Your task to perform on an android device: turn off location Image 0: 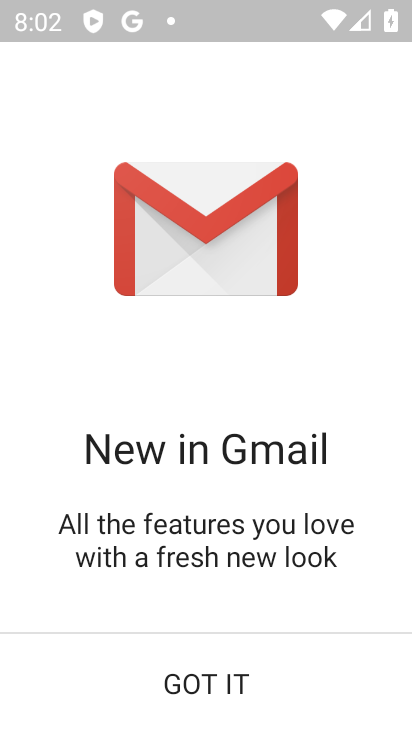
Step 0: click (198, 677)
Your task to perform on an android device: turn off location Image 1: 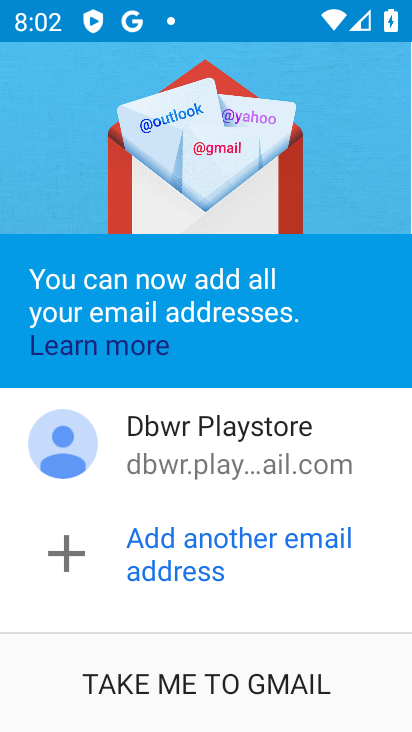
Step 1: press home button
Your task to perform on an android device: turn off location Image 2: 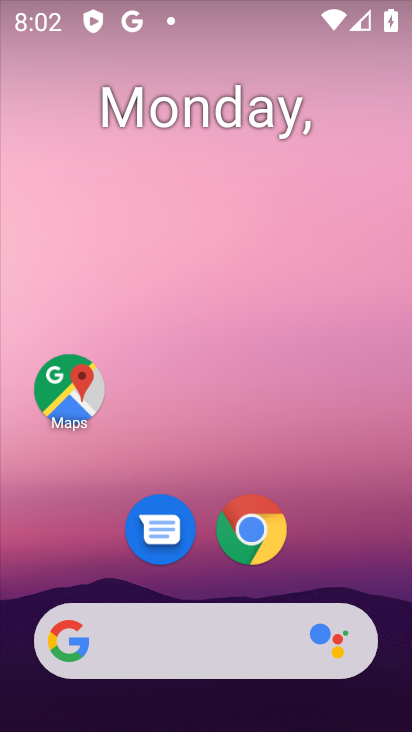
Step 2: drag from (267, 677) to (334, 154)
Your task to perform on an android device: turn off location Image 3: 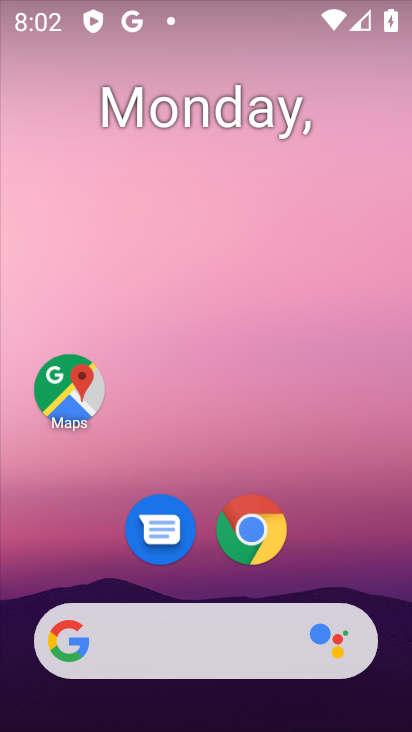
Step 3: drag from (212, 688) to (302, 83)
Your task to perform on an android device: turn off location Image 4: 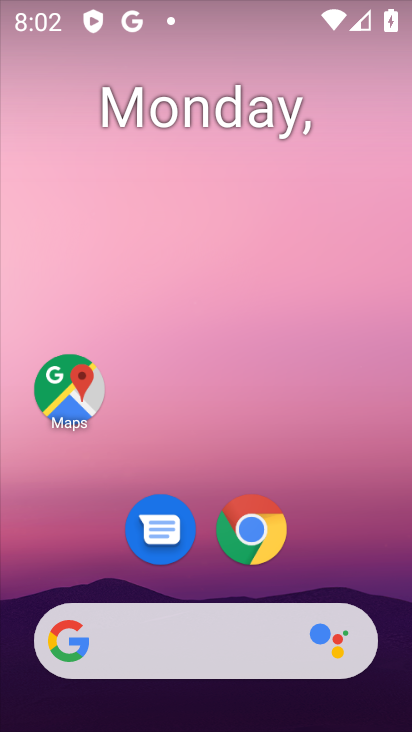
Step 4: drag from (208, 694) to (217, 168)
Your task to perform on an android device: turn off location Image 5: 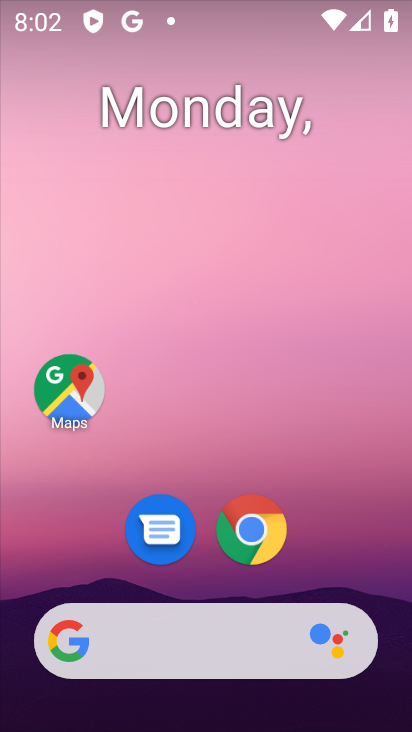
Step 5: drag from (207, 688) to (225, 204)
Your task to perform on an android device: turn off location Image 6: 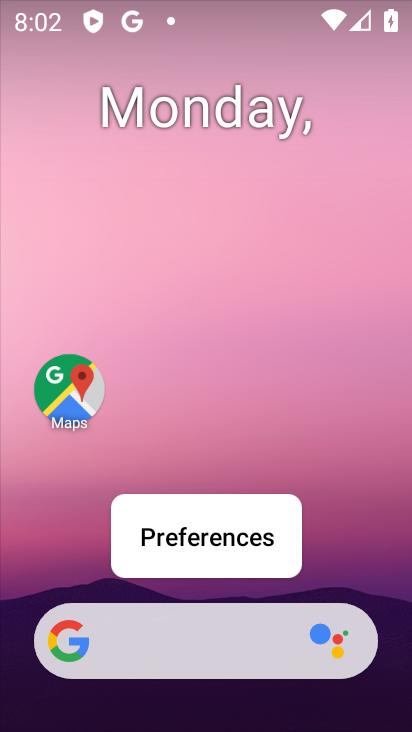
Step 6: click (192, 453)
Your task to perform on an android device: turn off location Image 7: 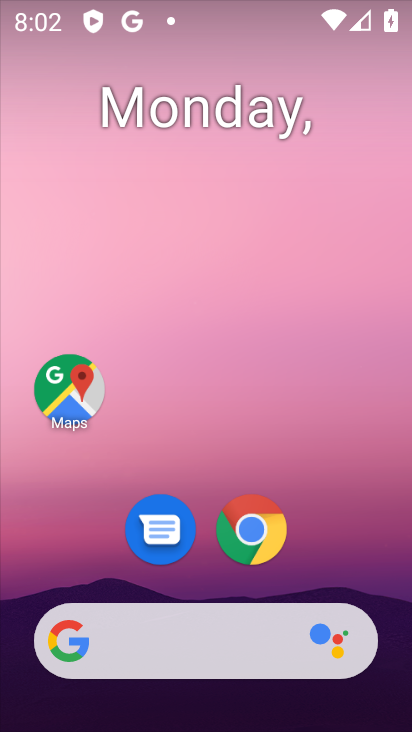
Step 7: drag from (241, 684) to (243, 159)
Your task to perform on an android device: turn off location Image 8: 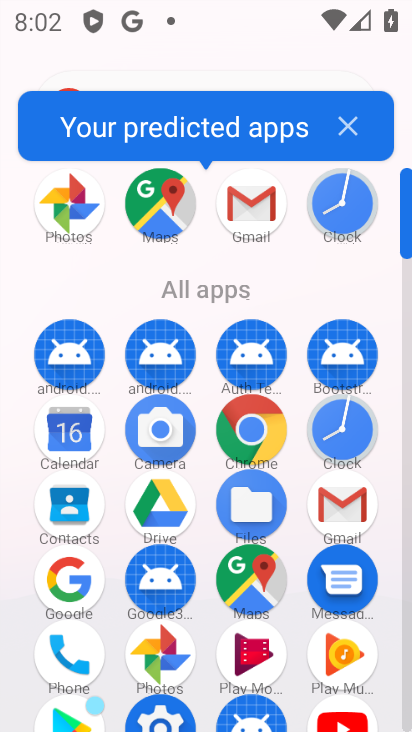
Step 8: click (168, 709)
Your task to perform on an android device: turn off location Image 9: 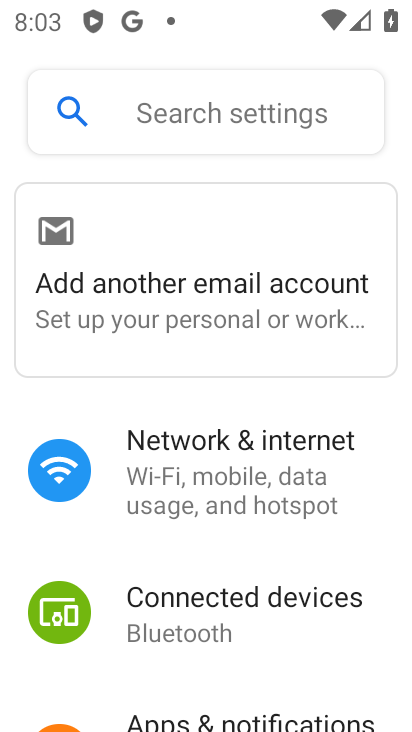
Step 9: click (213, 123)
Your task to perform on an android device: turn off location Image 10: 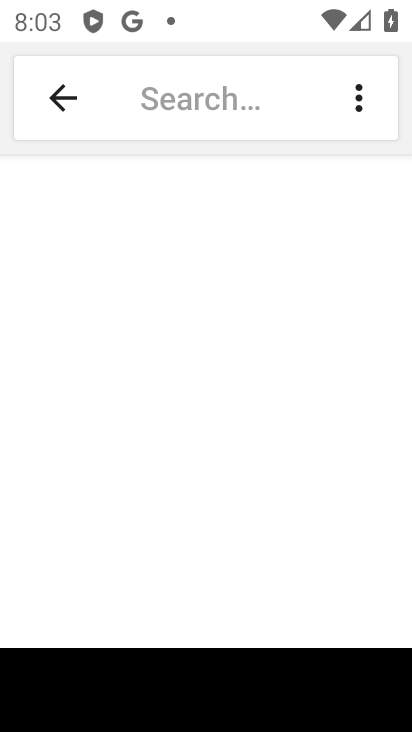
Step 10: click (382, 694)
Your task to perform on an android device: turn off location Image 11: 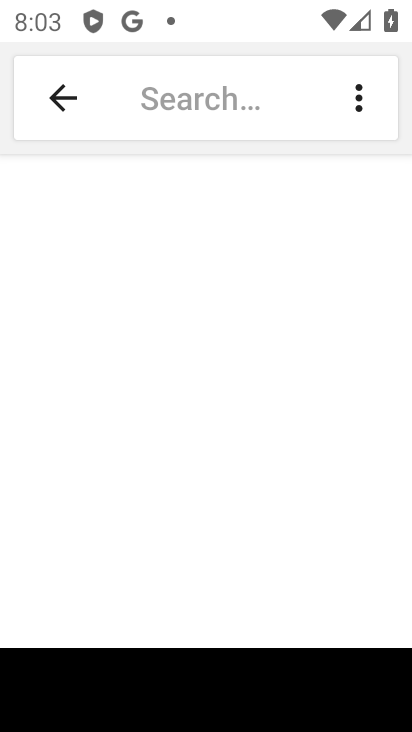
Step 11: drag from (378, 718) to (378, 571)
Your task to perform on an android device: turn off location Image 12: 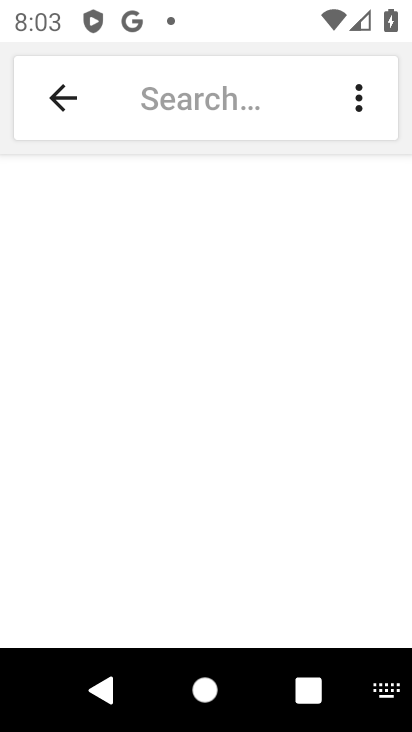
Step 12: click (379, 694)
Your task to perform on an android device: turn off location Image 13: 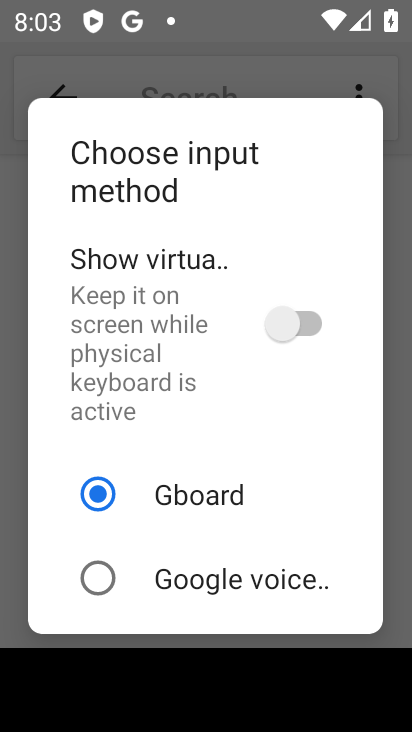
Step 13: click (296, 325)
Your task to perform on an android device: turn off location Image 14: 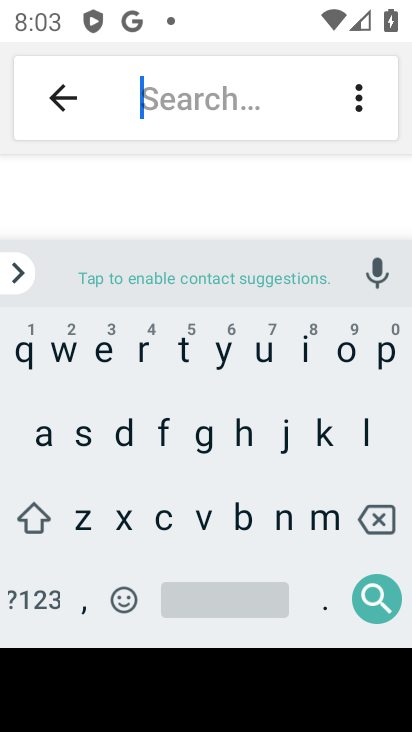
Step 14: click (367, 418)
Your task to perform on an android device: turn off location Image 15: 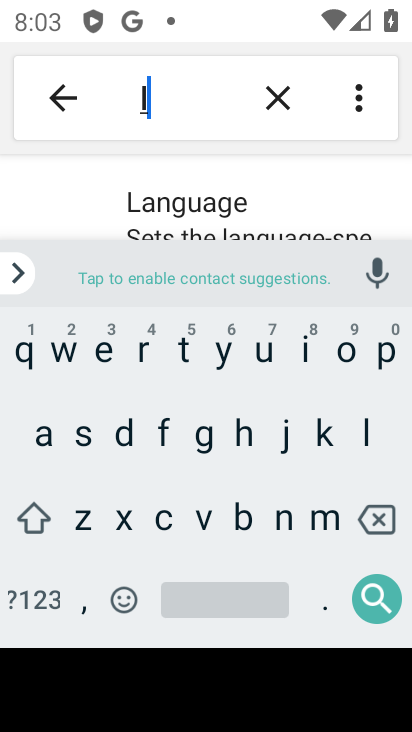
Step 15: click (343, 356)
Your task to perform on an android device: turn off location Image 16: 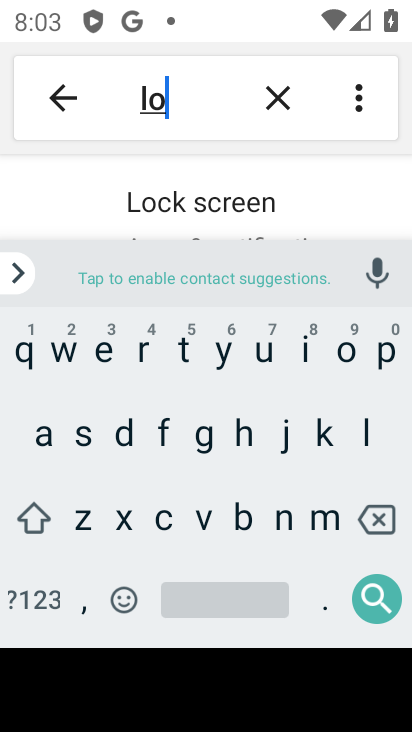
Step 16: drag from (216, 220) to (231, 121)
Your task to perform on an android device: turn off location Image 17: 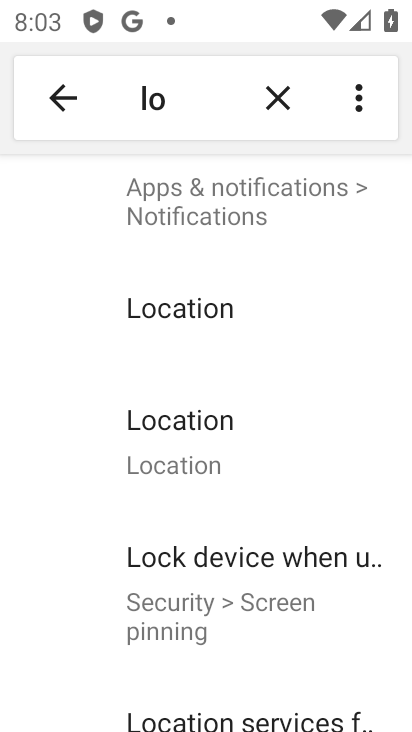
Step 17: click (182, 431)
Your task to perform on an android device: turn off location Image 18: 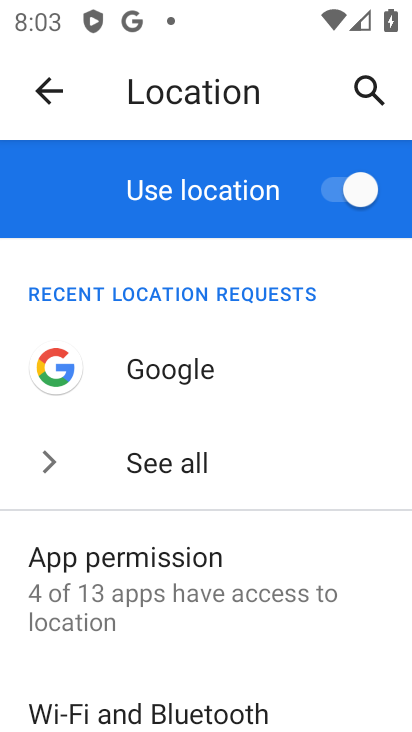
Step 18: drag from (182, 627) to (221, 175)
Your task to perform on an android device: turn off location Image 19: 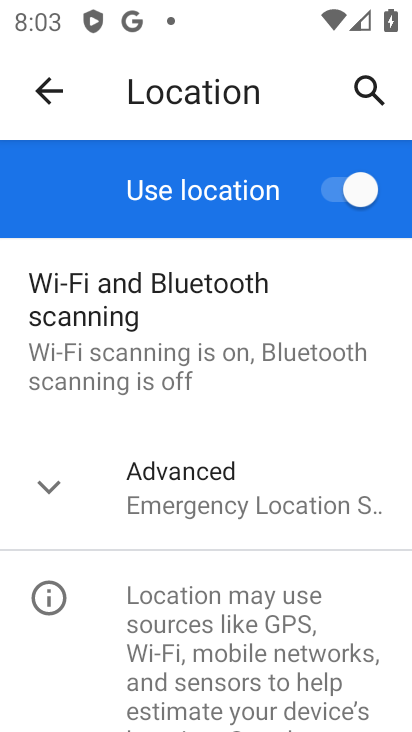
Step 19: click (49, 485)
Your task to perform on an android device: turn off location Image 20: 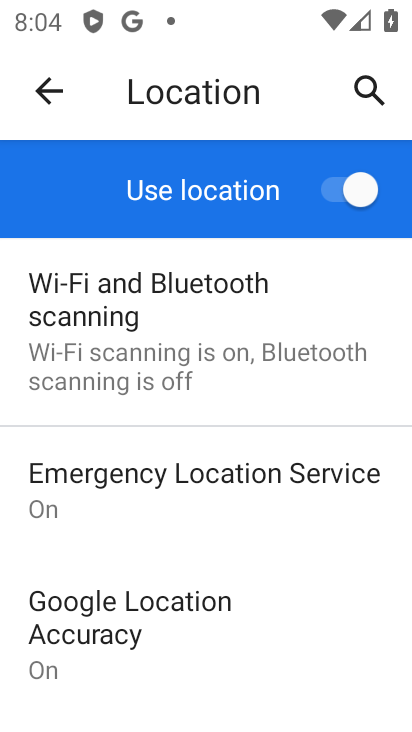
Step 20: click (344, 186)
Your task to perform on an android device: turn off location Image 21: 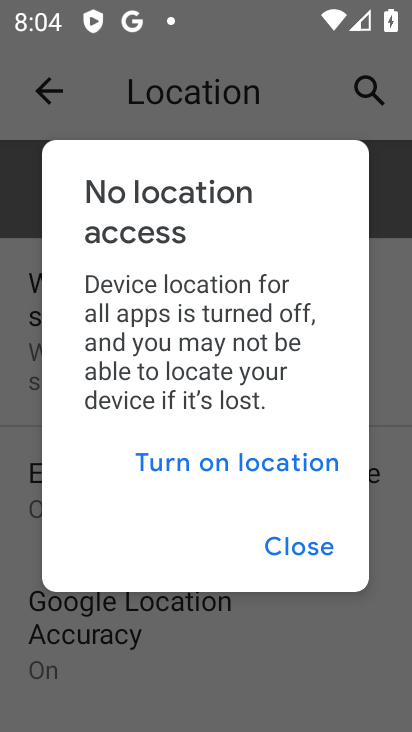
Step 21: task complete